Your task to perform on an android device: change the clock display to digital Image 0: 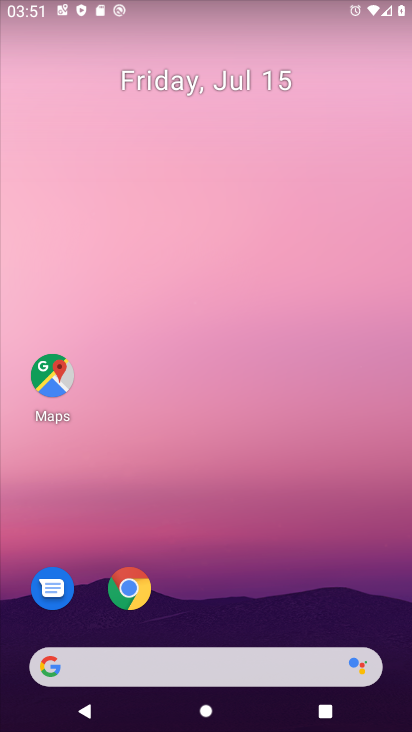
Step 0: drag from (193, 677) to (260, 194)
Your task to perform on an android device: change the clock display to digital Image 1: 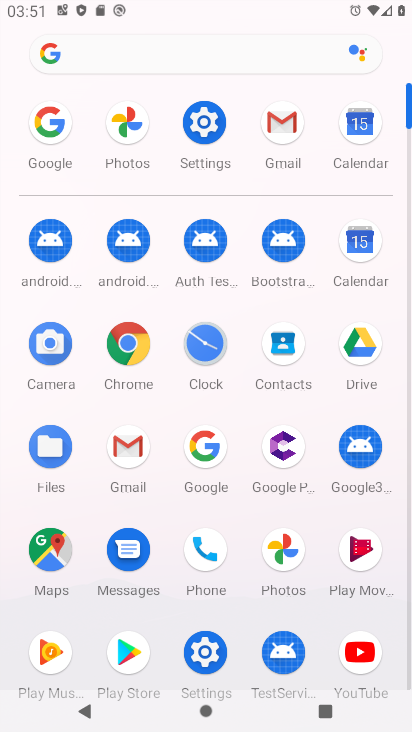
Step 1: click (205, 343)
Your task to perform on an android device: change the clock display to digital Image 2: 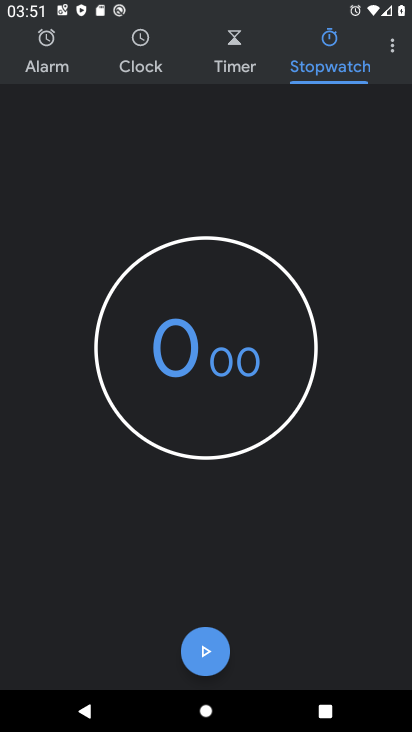
Step 2: click (393, 47)
Your task to perform on an android device: change the clock display to digital Image 3: 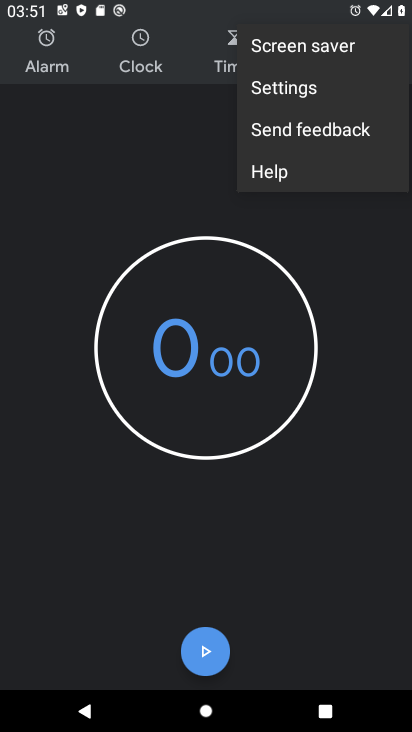
Step 3: click (288, 87)
Your task to perform on an android device: change the clock display to digital Image 4: 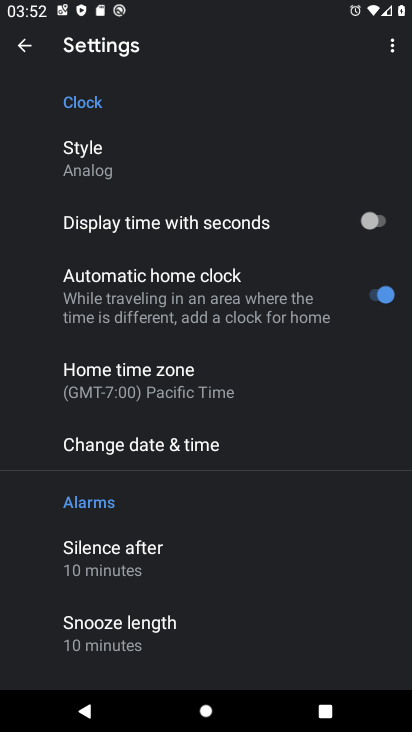
Step 4: click (108, 173)
Your task to perform on an android device: change the clock display to digital Image 5: 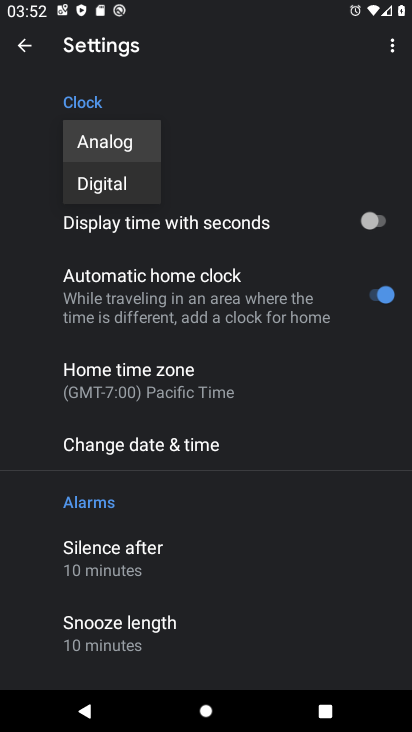
Step 5: click (108, 184)
Your task to perform on an android device: change the clock display to digital Image 6: 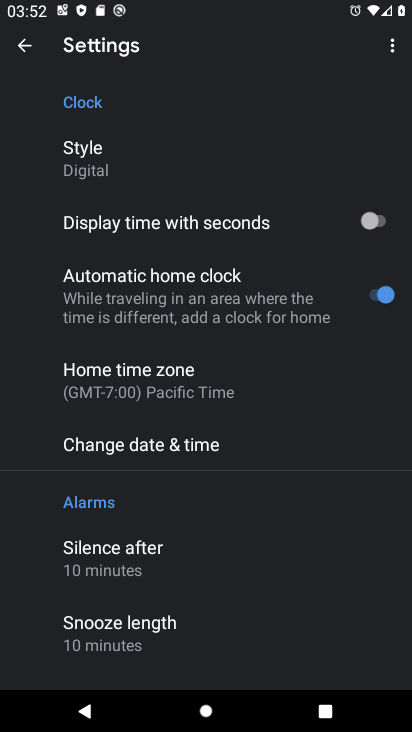
Step 6: task complete